Your task to perform on an android device: turn off notifications in google photos Image 0: 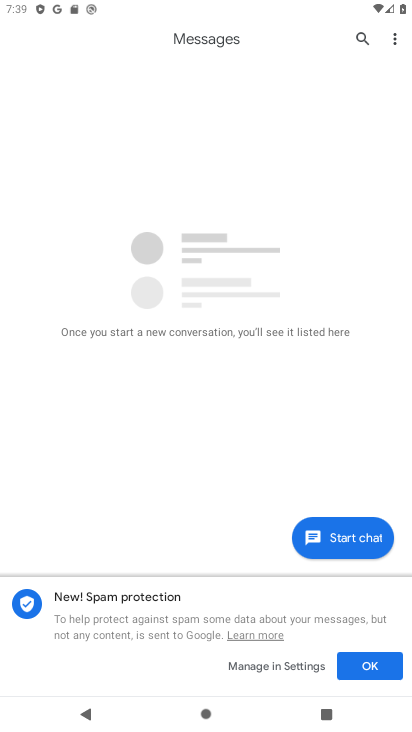
Step 0: press home button
Your task to perform on an android device: turn off notifications in google photos Image 1: 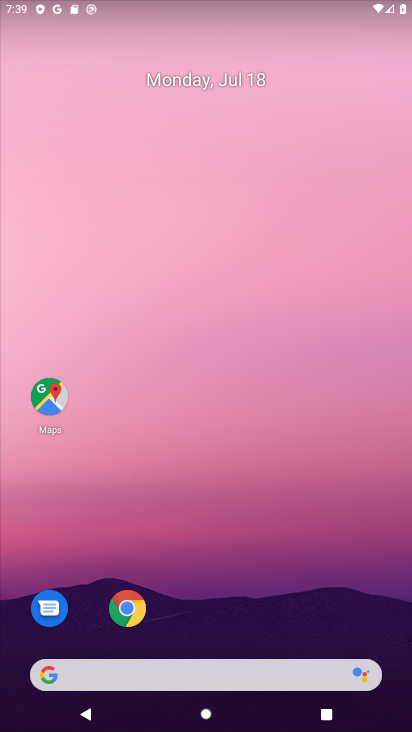
Step 1: drag from (208, 528) to (230, 96)
Your task to perform on an android device: turn off notifications in google photos Image 2: 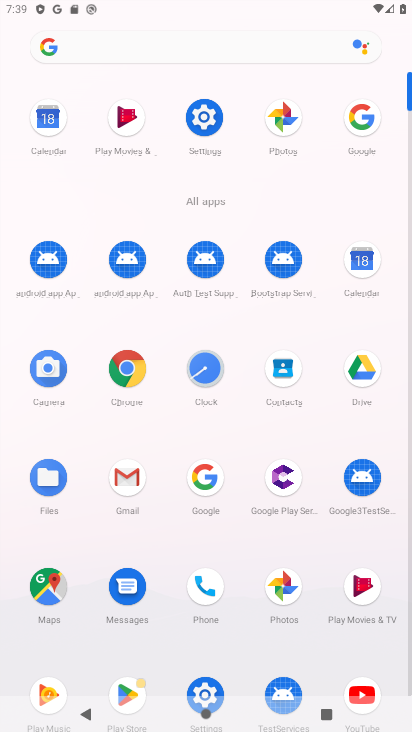
Step 2: click (285, 586)
Your task to perform on an android device: turn off notifications in google photos Image 3: 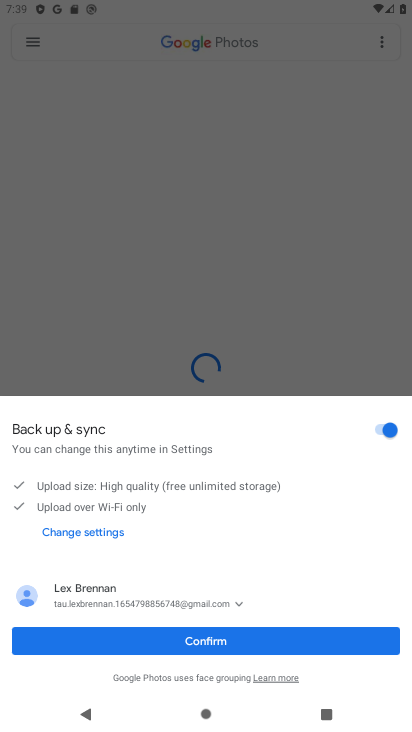
Step 3: click (197, 646)
Your task to perform on an android device: turn off notifications in google photos Image 4: 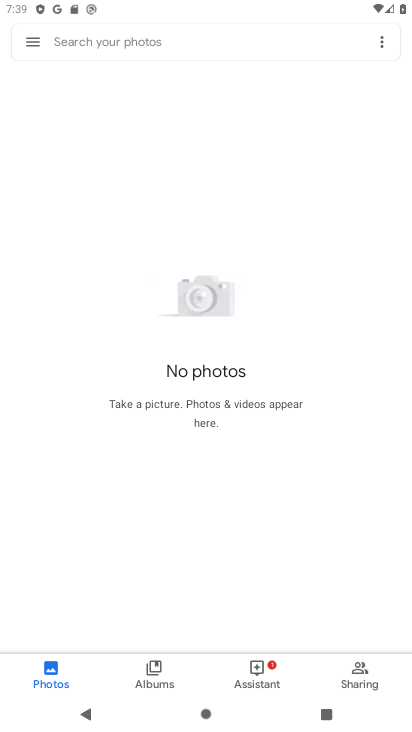
Step 4: click (30, 43)
Your task to perform on an android device: turn off notifications in google photos Image 5: 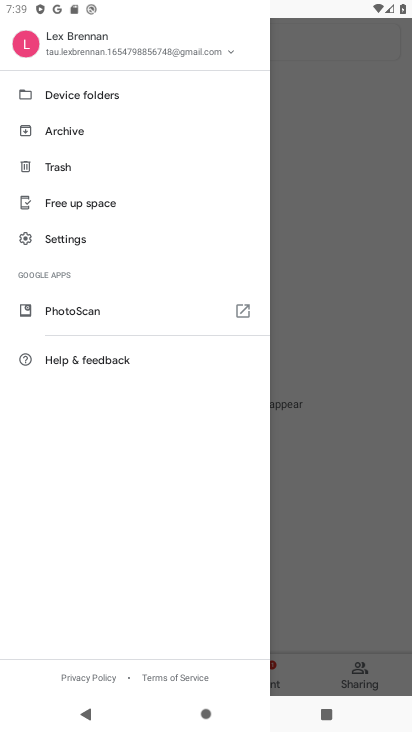
Step 5: click (47, 236)
Your task to perform on an android device: turn off notifications in google photos Image 6: 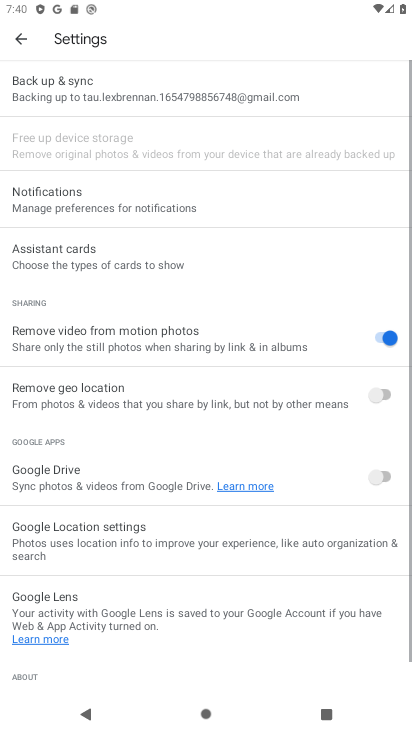
Step 6: click (74, 89)
Your task to perform on an android device: turn off notifications in google photos Image 7: 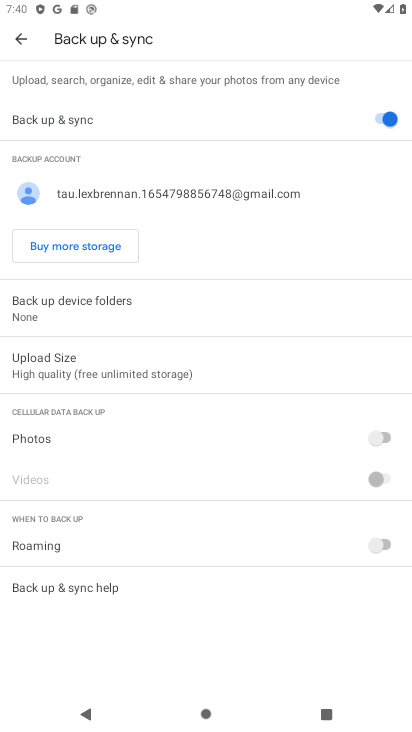
Step 7: press back button
Your task to perform on an android device: turn off notifications in google photos Image 8: 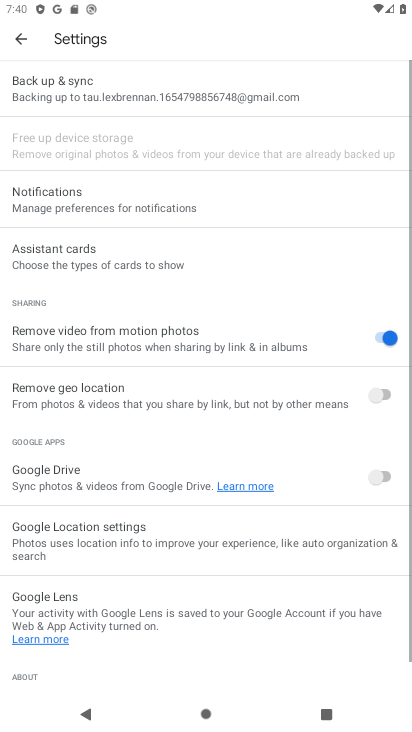
Step 8: click (100, 204)
Your task to perform on an android device: turn off notifications in google photos Image 9: 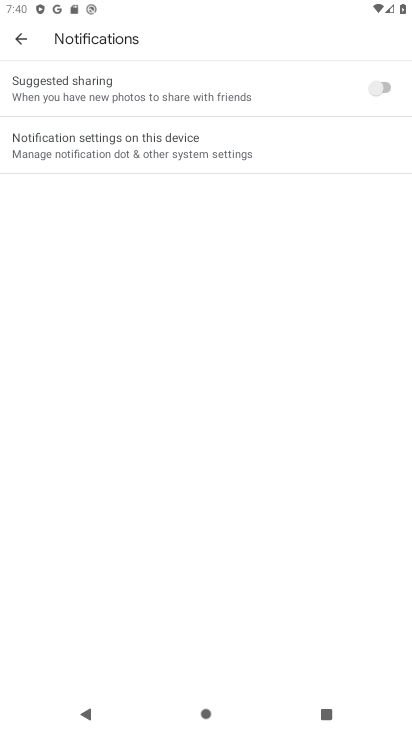
Step 9: click (143, 139)
Your task to perform on an android device: turn off notifications in google photos Image 10: 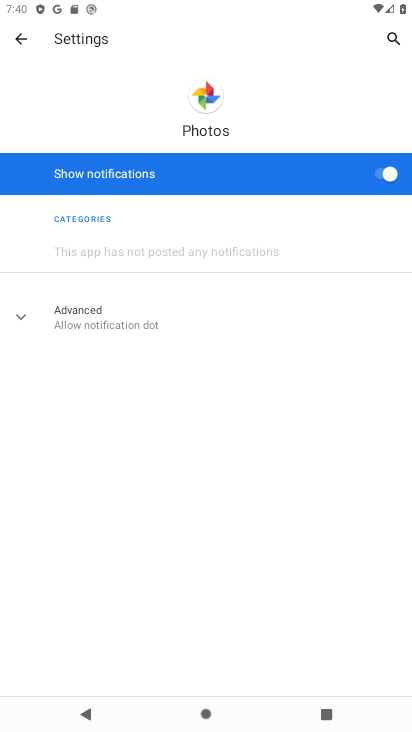
Step 10: click (383, 176)
Your task to perform on an android device: turn off notifications in google photos Image 11: 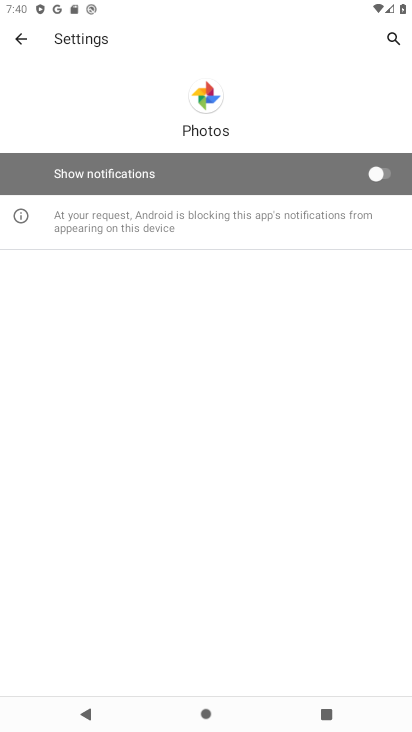
Step 11: task complete